Your task to perform on an android device: Do I have any events today? Image 0: 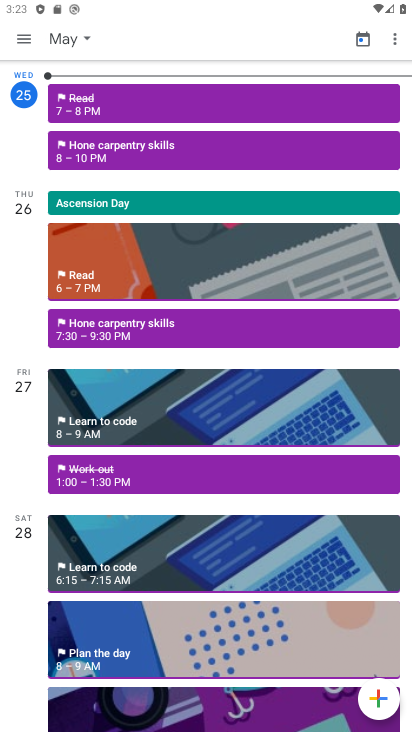
Step 0: press home button
Your task to perform on an android device: Do I have any events today? Image 1: 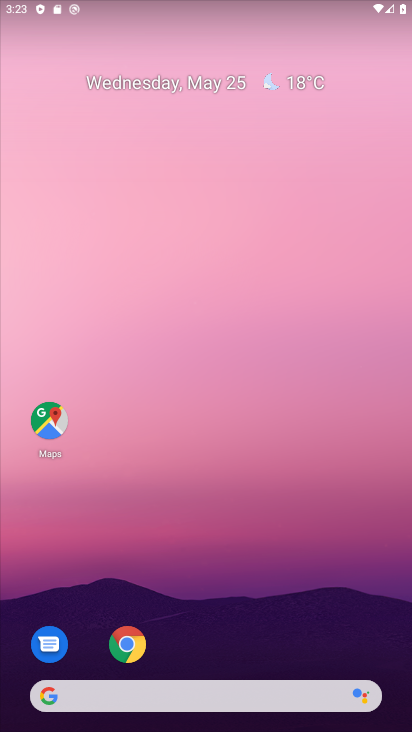
Step 1: drag from (286, 603) to (208, 123)
Your task to perform on an android device: Do I have any events today? Image 2: 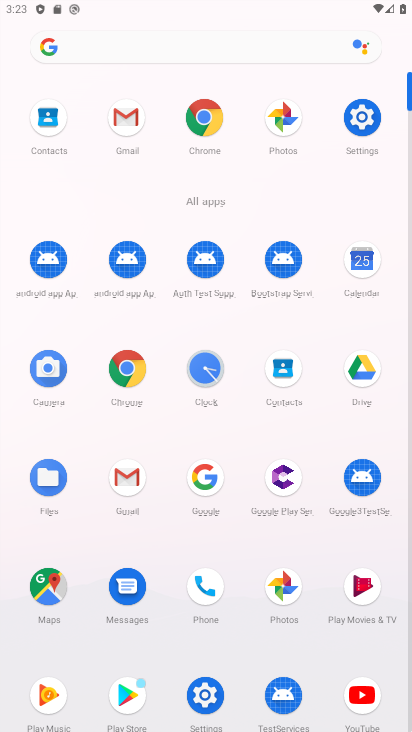
Step 2: click (362, 261)
Your task to perform on an android device: Do I have any events today? Image 3: 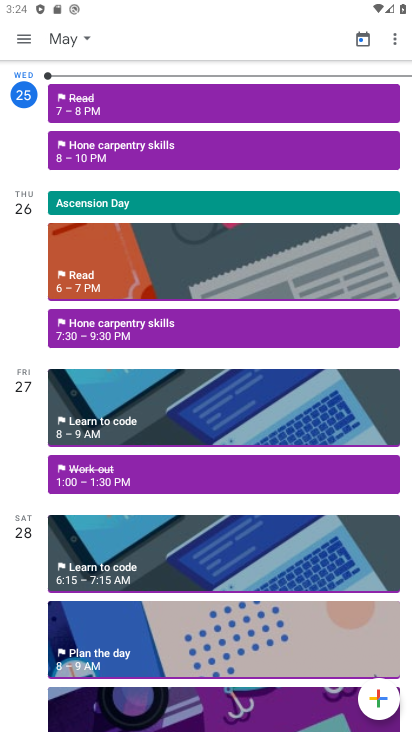
Step 3: click (84, 38)
Your task to perform on an android device: Do I have any events today? Image 4: 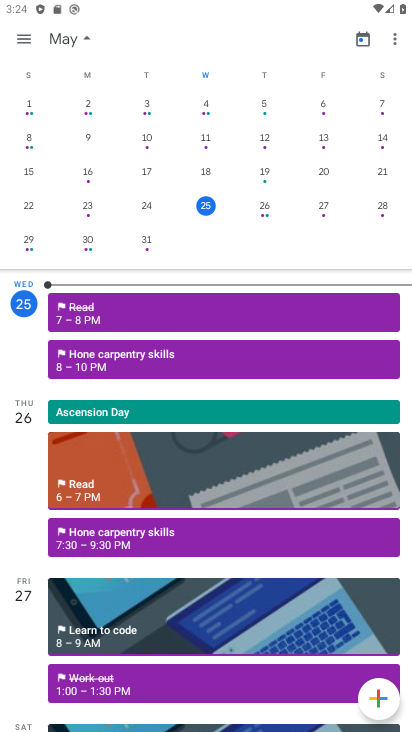
Step 4: click (206, 211)
Your task to perform on an android device: Do I have any events today? Image 5: 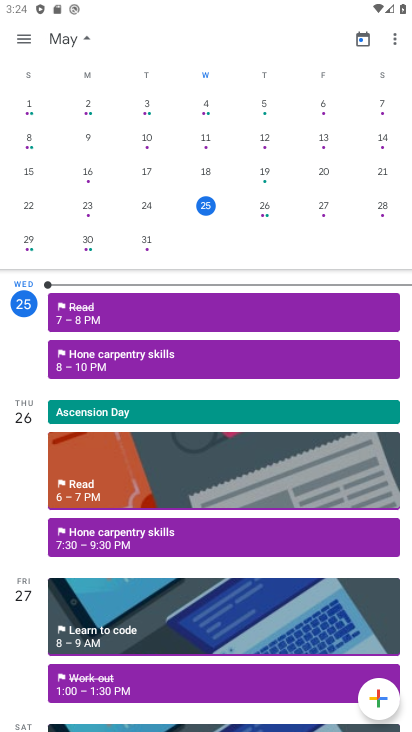
Step 5: click (147, 319)
Your task to perform on an android device: Do I have any events today? Image 6: 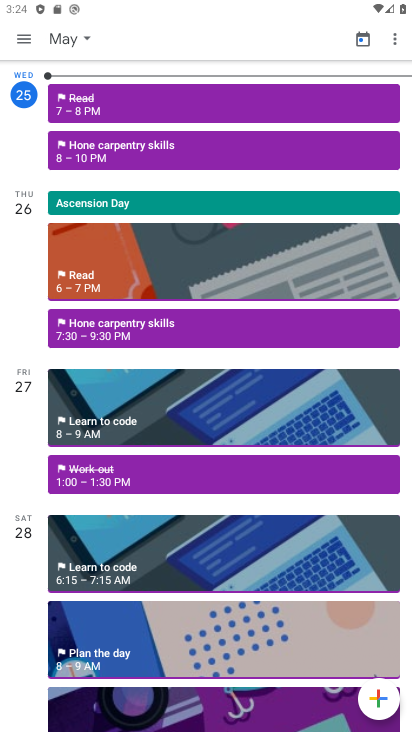
Step 6: task complete